Your task to perform on an android device: Do I have any events tomorrow? Image 0: 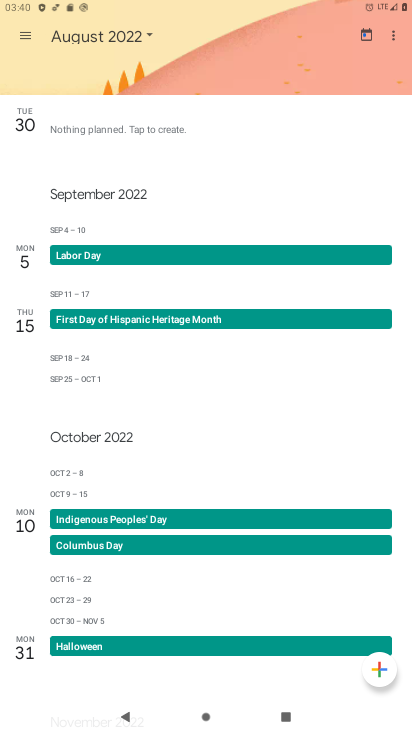
Step 0: press home button
Your task to perform on an android device: Do I have any events tomorrow? Image 1: 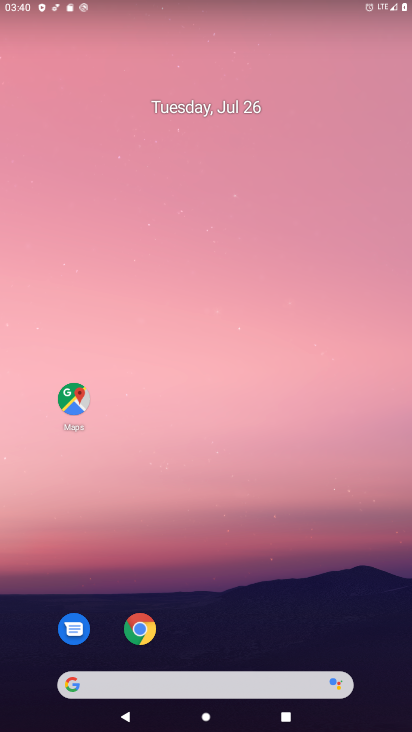
Step 1: drag from (297, 597) to (346, 110)
Your task to perform on an android device: Do I have any events tomorrow? Image 2: 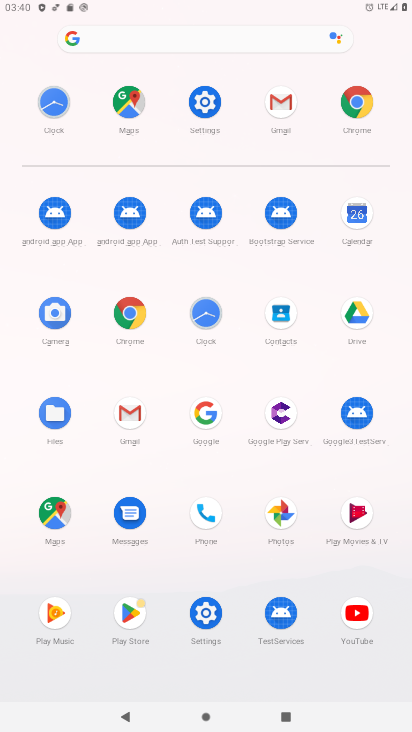
Step 2: click (362, 213)
Your task to perform on an android device: Do I have any events tomorrow? Image 3: 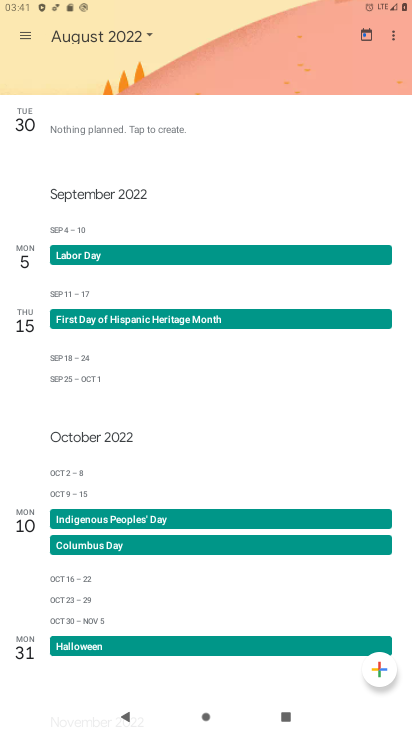
Step 3: click (112, 40)
Your task to perform on an android device: Do I have any events tomorrow? Image 4: 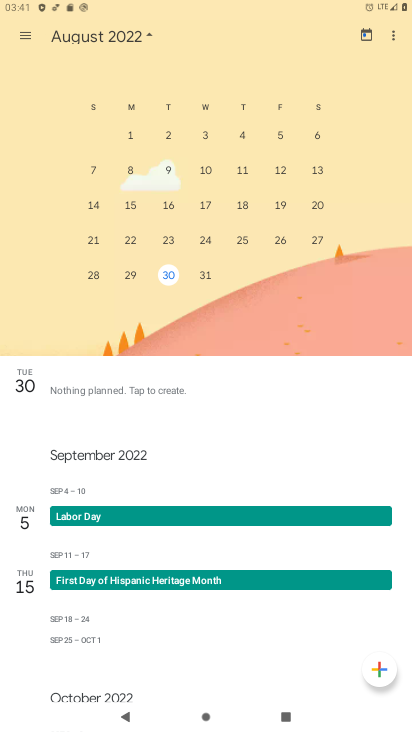
Step 4: drag from (81, 209) to (410, 260)
Your task to perform on an android device: Do I have any events tomorrow? Image 5: 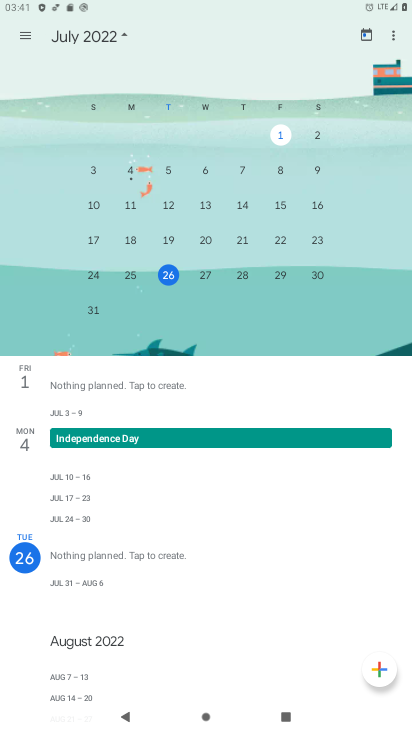
Step 5: click (211, 274)
Your task to perform on an android device: Do I have any events tomorrow? Image 6: 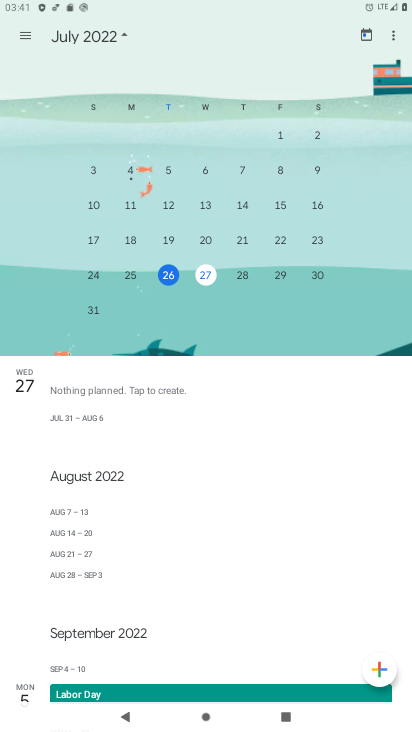
Step 6: task complete